Your task to perform on an android device: Open Google Image 0: 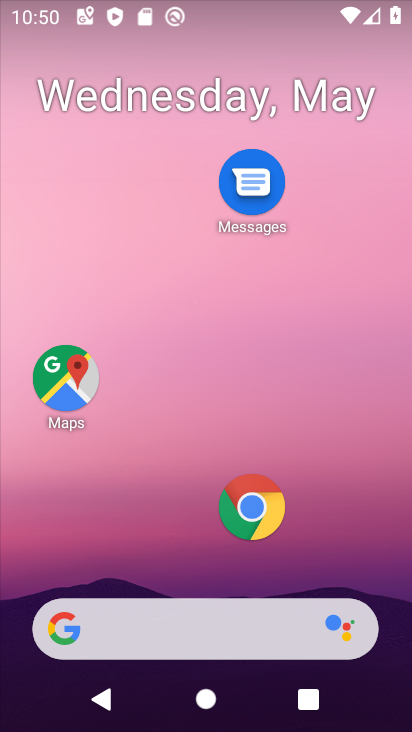
Step 0: drag from (195, 579) to (221, 326)
Your task to perform on an android device: Open Google Image 1: 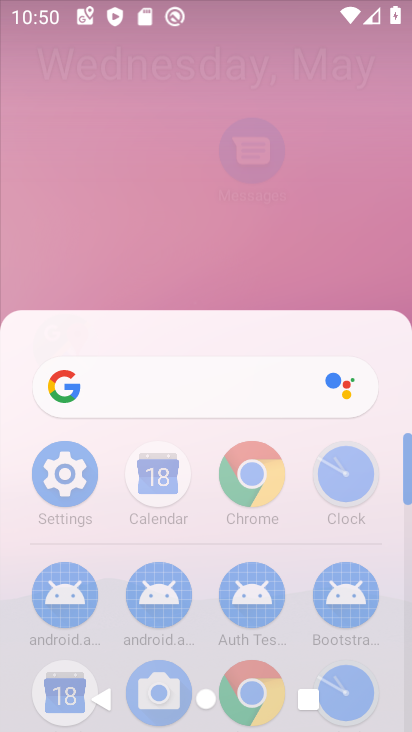
Step 1: click (245, 34)
Your task to perform on an android device: Open Google Image 2: 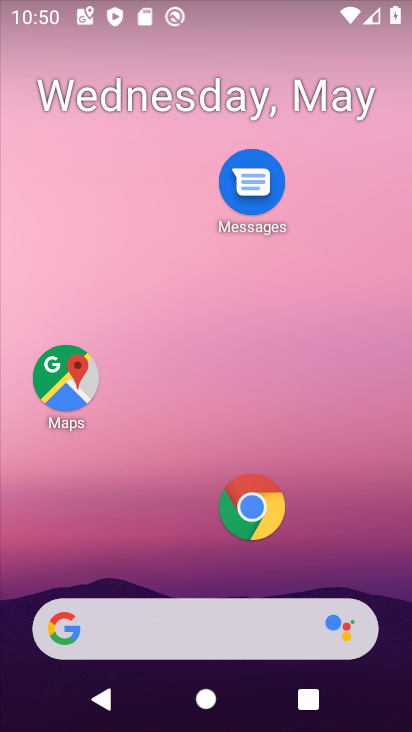
Step 2: drag from (181, 593) to (205, 42)
Your task to perform on an android device: Open Google Image 3: 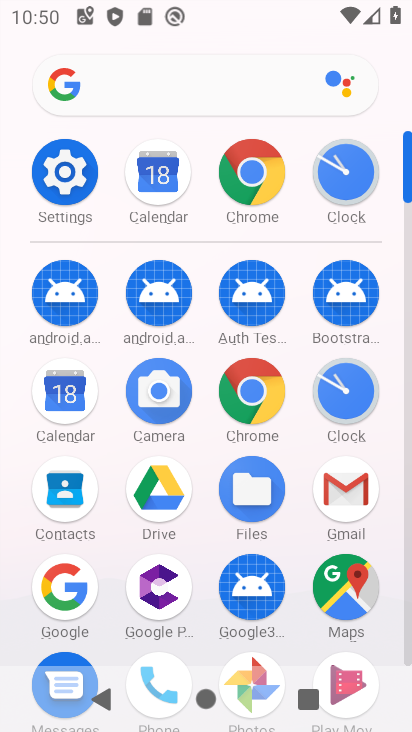
Step 3: click (65, 581)
Your task to perform on an android device: Open Google Image 4: 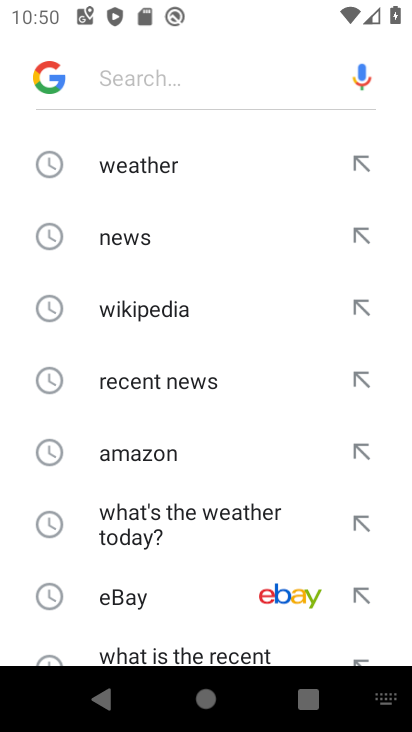
Step 4: press back button
Your task to perform on an android device: Open Google Image 5: 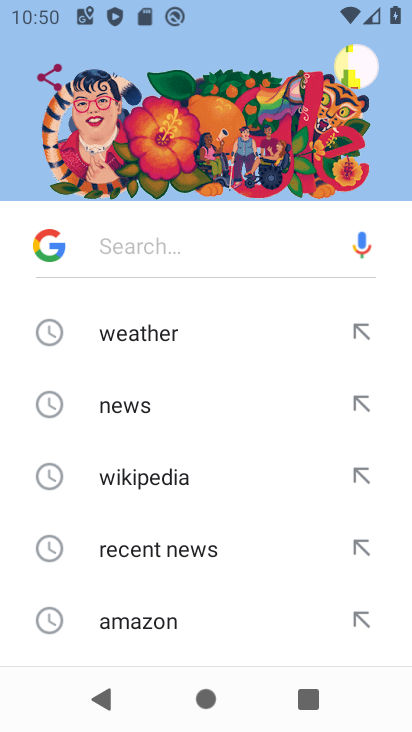
Step 5: press back button
Your task to perform on an android device: Open Google Image 6: 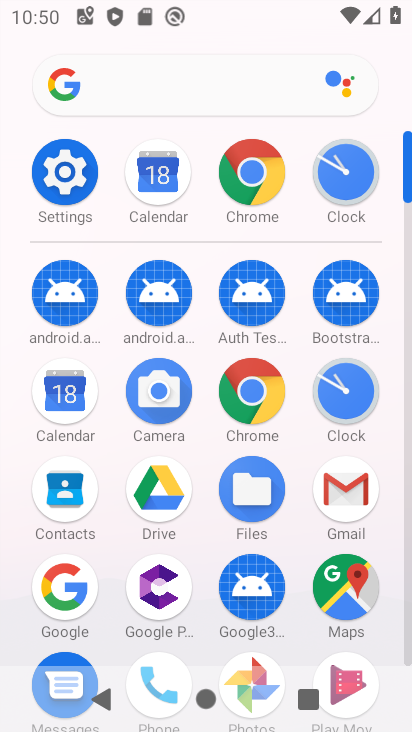
Step 6: click (60, 586)
Your task to perform on an android device: Open Google Image 7: 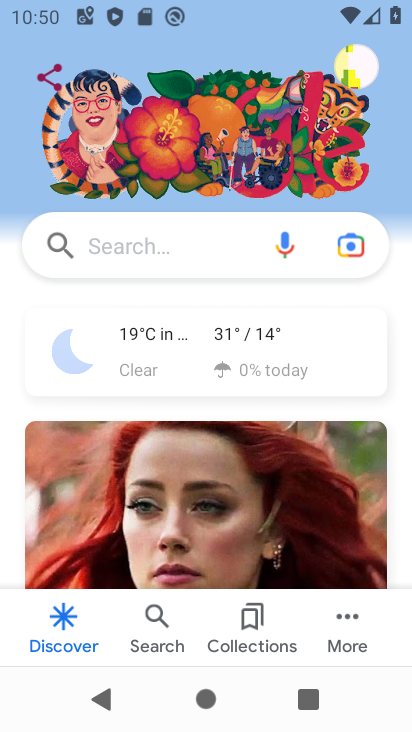
Step 7: click (347, 615)
Your task to perform on an android device: Open Google Image 8: 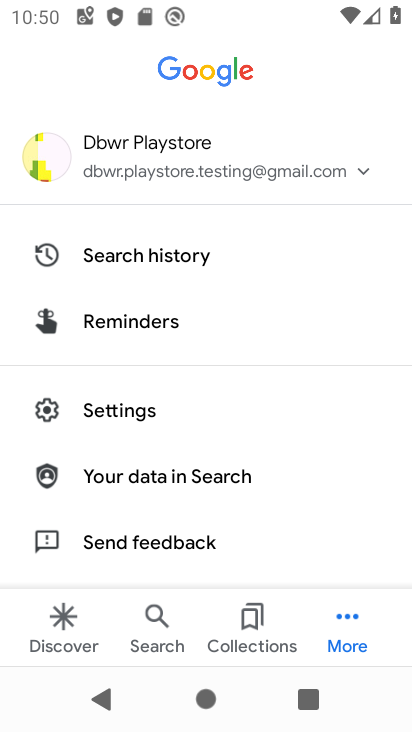
Step 8: task complete